Your task to perform on an android device: turn off notifications settings in the gmail app Image 0: 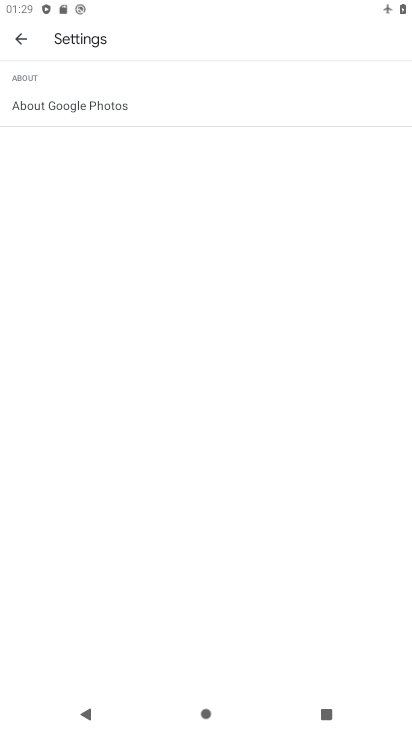
Step 0: press home button
Your task to perform on an android device: turn off notifications settings in the gmail app Image 1: 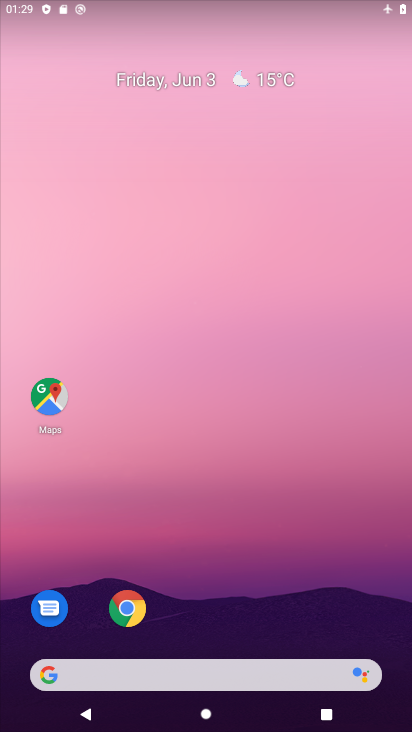
Step 1: drag from (304, 594) to (283, 220)
Your task to perform on an android device: turn off notifications settings in the gmail app Image 2: 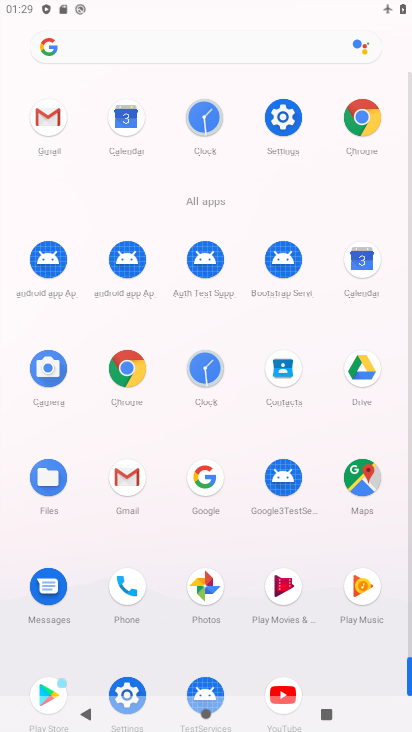
Step 2: click (48, 123)
Your task to perform on an android device: turn off notifications settings in the gmail app Image 3: 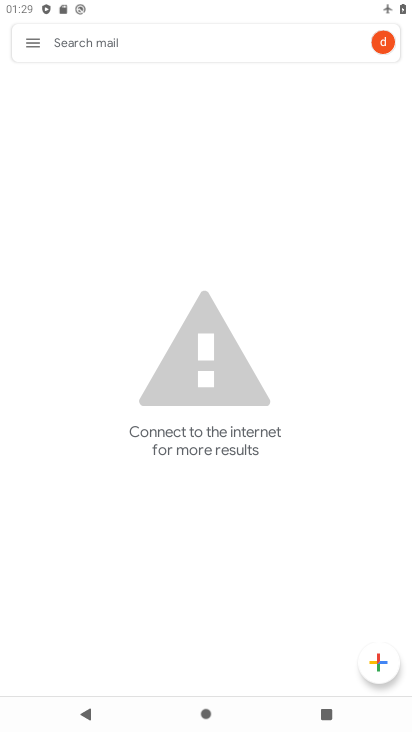
Step 3: click (36, 50)
Your task to perform on an android device: turn off notifications settings in the gmail app Image 4: 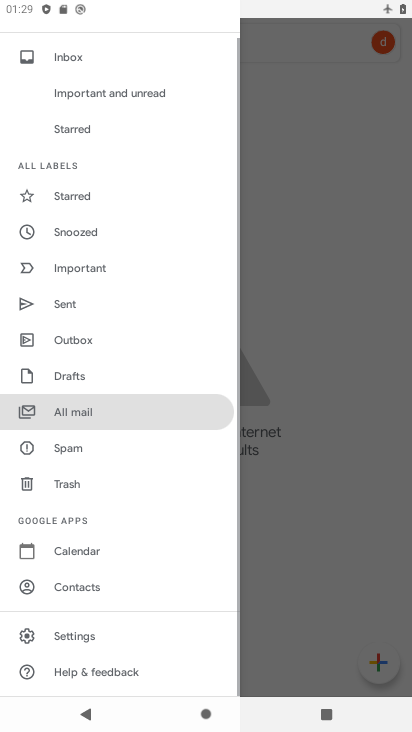
Step 4: drag from (113, 587) to (150, 211)
Your task to perform on an android device: turn off notifications settings in the gmail app Image 5: 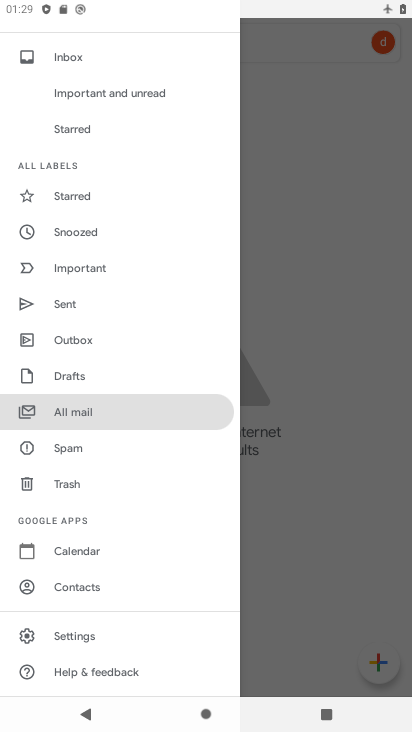
Step 5: click (84, 634)
Your task to perform on an android device: turn off notifications settings in the gmail app Image 6: 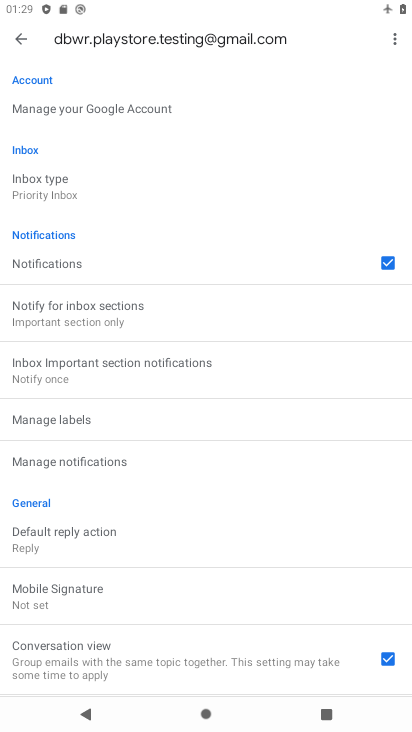
Step 6: click (112, 459)
Your task to perform on an android device: turn off notifications settings in the gmail app Image 7: 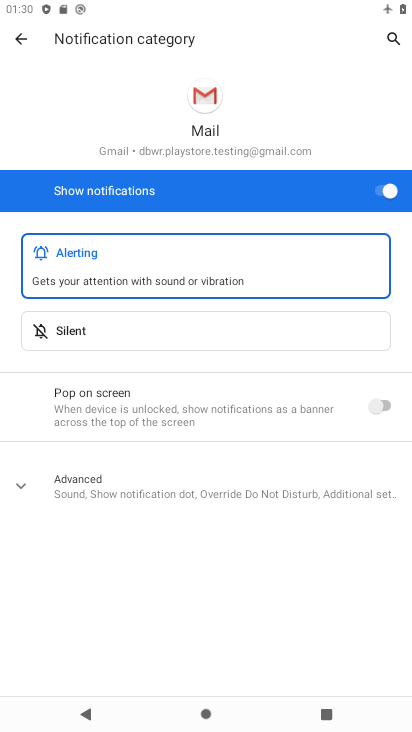
Step 7: click (383, 184)
Your task to perform on an android device: turn off notifications settings in the gmail app Image 8: 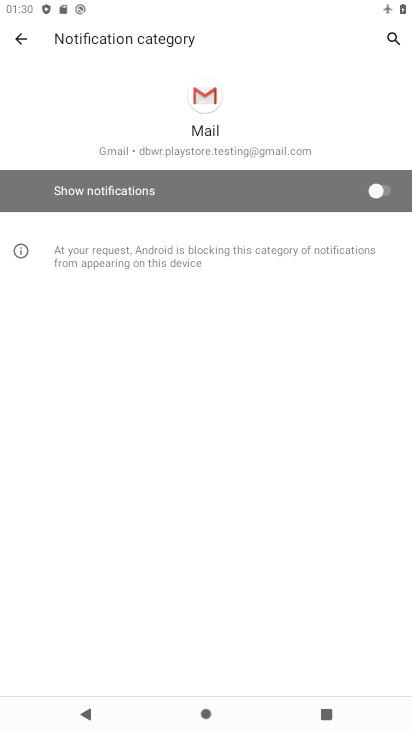
Step 8: task complete